Your task to perform on an android device: Search for Italian restaurants on Maps Image 0: 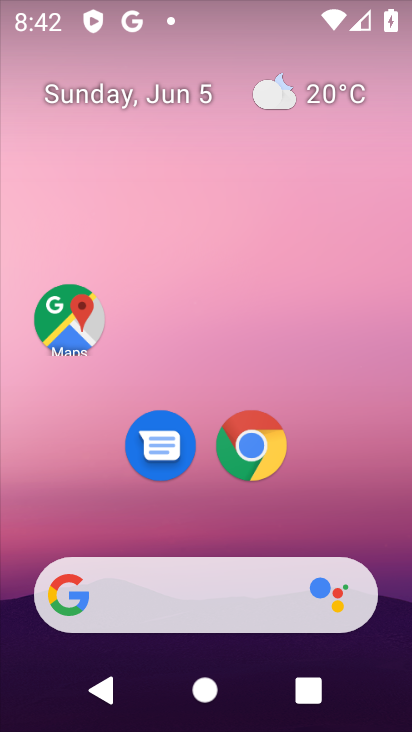
Step 0: drag from (334, 658) to (294, 7)
Your task to perform on an android device: Search for Italian restaurants on Maps Image 1: 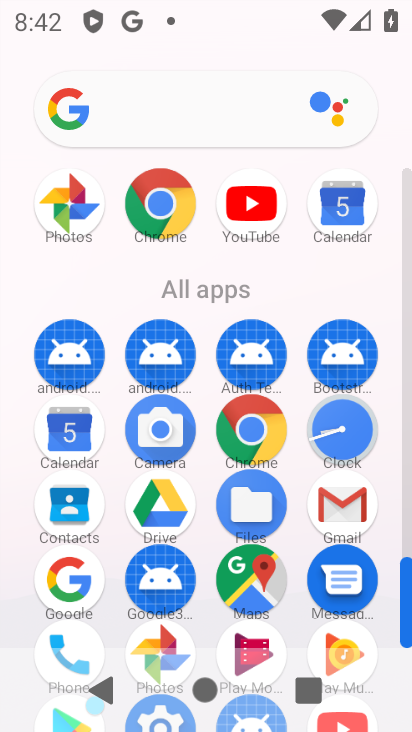
Step 1: click (253, 576)
Your task to perform on an android device: Search for Italian restaurants on Maps Image 2: 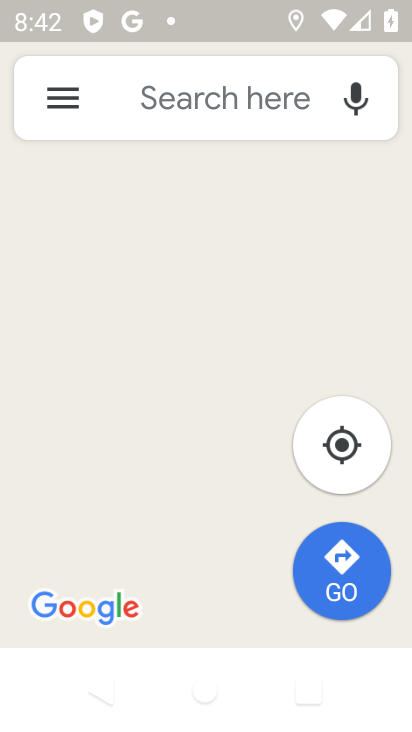
Step 2: click (271, 81)
Your task to perform on an android device: Search for Italian restaurants on Maps Image 3: 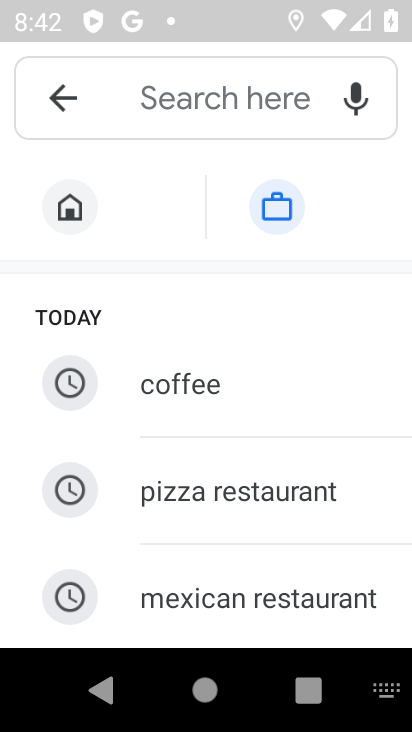
Step 3: type "italian restaurant"
Your task to perform on an android device: Search for Italian restaurants on Maps Image 4: 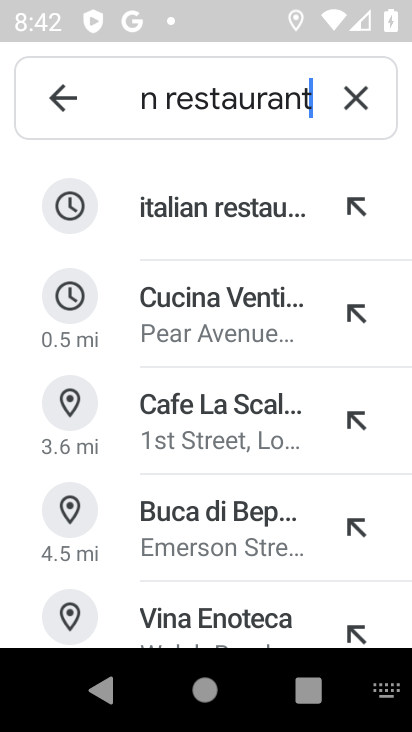
Step 4: click (243, 210)
Your task to perform on an android device: Search for Italian restaurants on Maps Image 5: 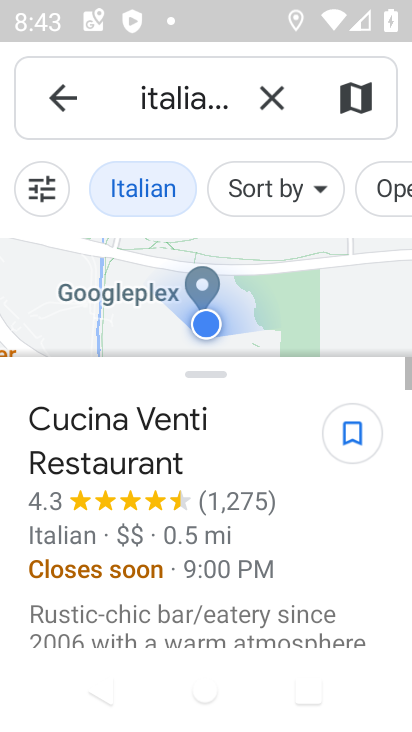
Step 5: task complete